Your task to perform on an android device: change keyboard looks Image 0: 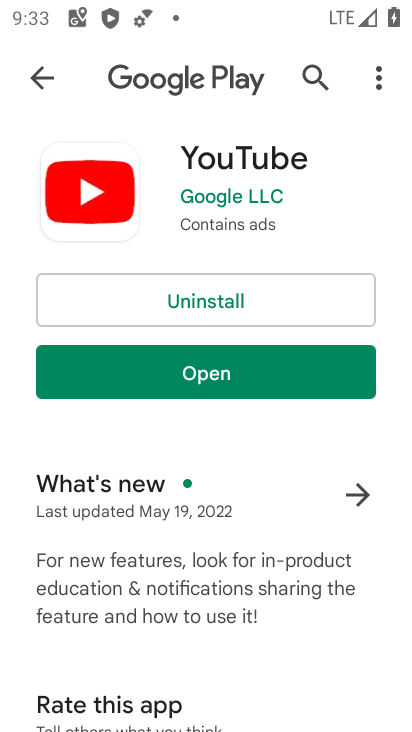
Step 0: press home button
Your task to perform on an android device: change keyboard looks Image 1: 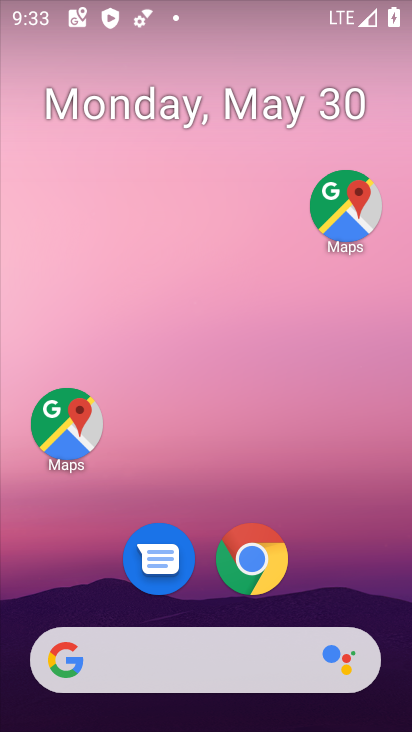
Step 1: drag from (342, 511) to (286, 168)
Your task to perform on an android device: change keyboard looks Image 2: 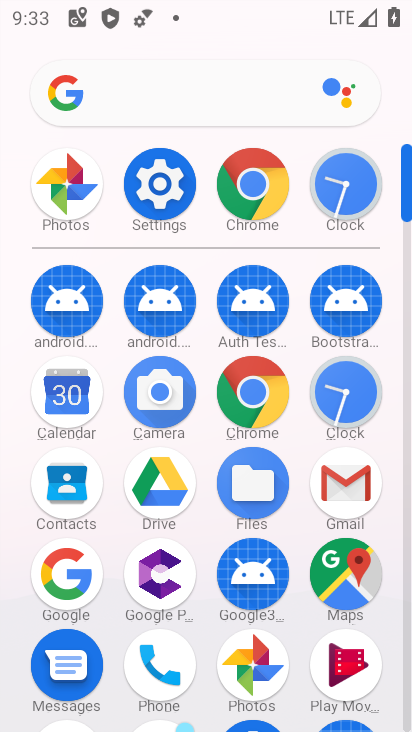
Step 2: click (156, 199)
Your task to perform on an android device: change keyboard looks Image 3: 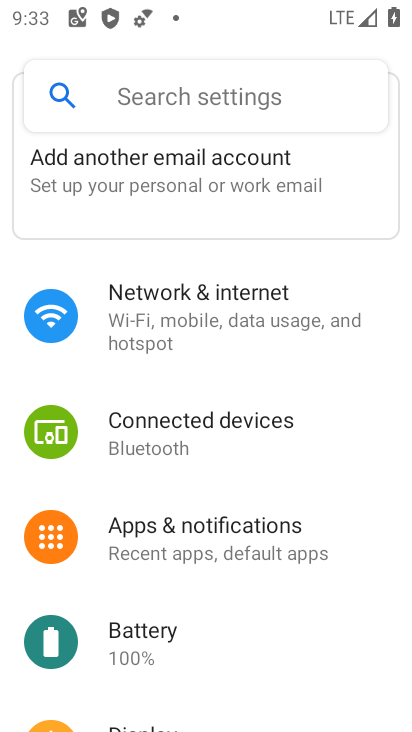
Step 3: drag from (204, 619) to (234, 108)
Your task to perform on an android device: change keyboard looks Image 4: 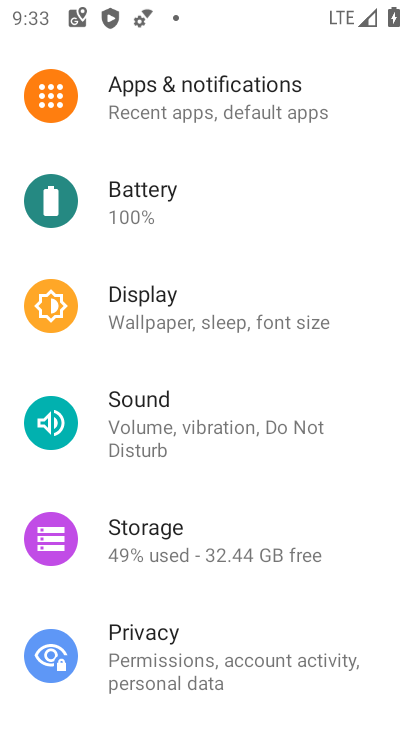
Step 4: drag from (225, 646) to (316, 118)
Your task to perform on an android device: change keyboard looks Image 5: 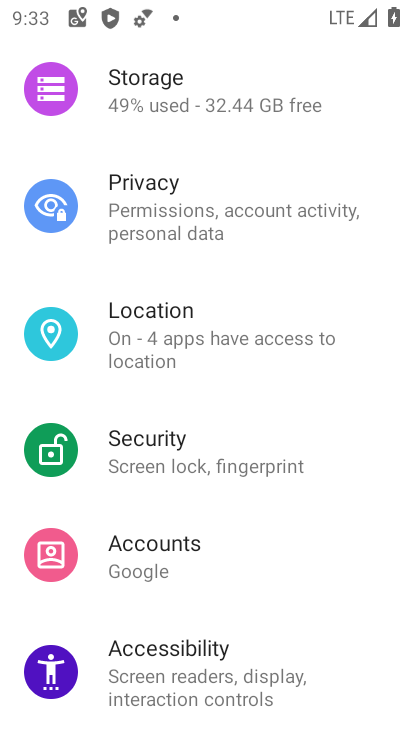
Step 5: drag from (159, 609) to (283, 124)
Your task to perform on an android device: change keyboard looks Image 6: 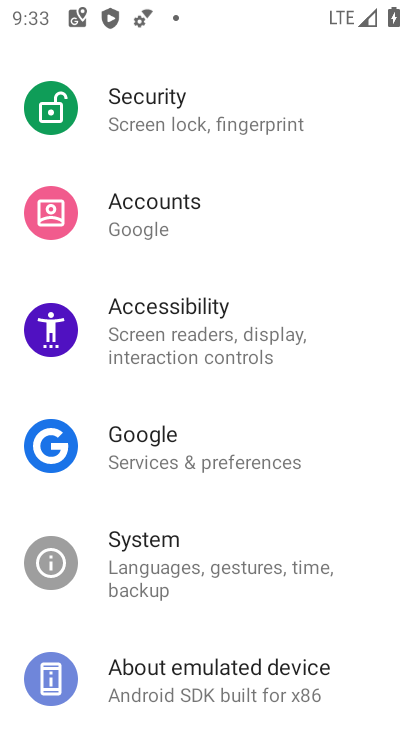
Step 6: click (183, 557)
Your task to perform on an android device: change keyboard looks Image 7: 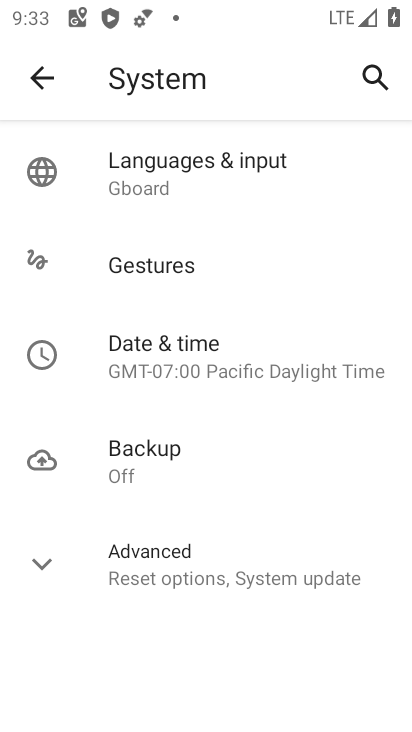
Step 7: click (169, 164)
Your task to perform on an android device: change keyboard looks Image 8: 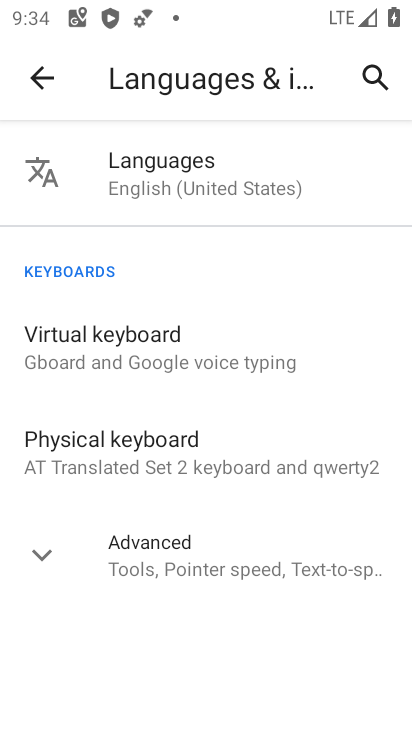
Step 8: click (117, 328)
Your task to perform on an android device: change keyboard looks Image 9: 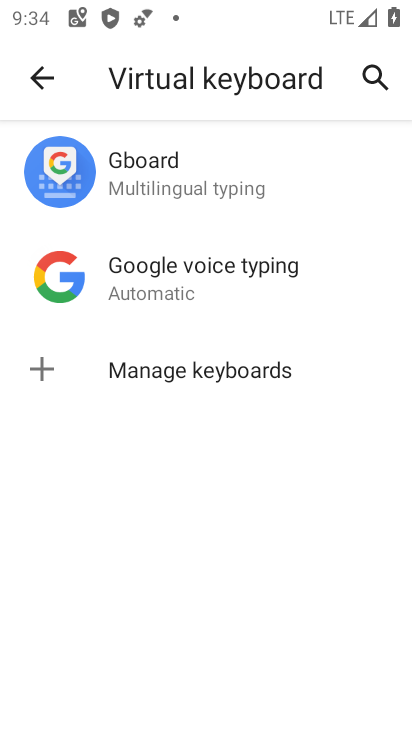
Step 9: click (155, 173)
Your task to perform on an android device: change keyboard looks Image 10: 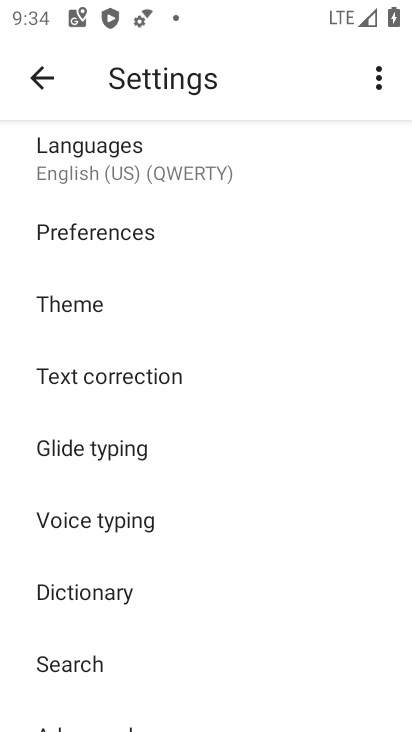
Step 10: click (145, 163)
Your task to perform on an android device: change keyboard looks Image 11: 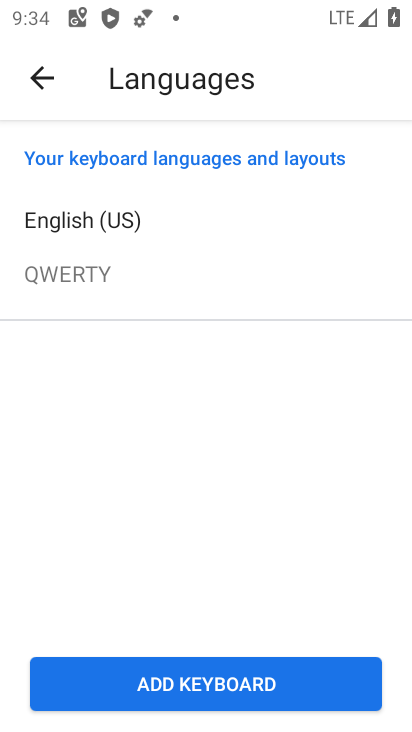
Step 11: click (43, 77)
Your task to perform on an android device: change keyboard looks Image 12: 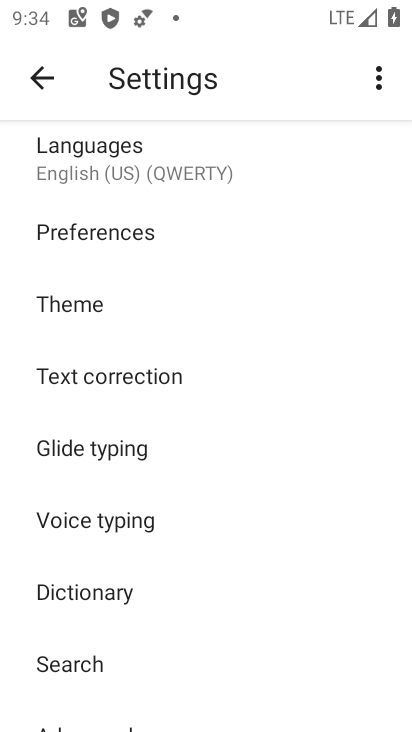
Step 12: click (91, 290)
Your task to perform on an android device: change keyboard looks Image 13: 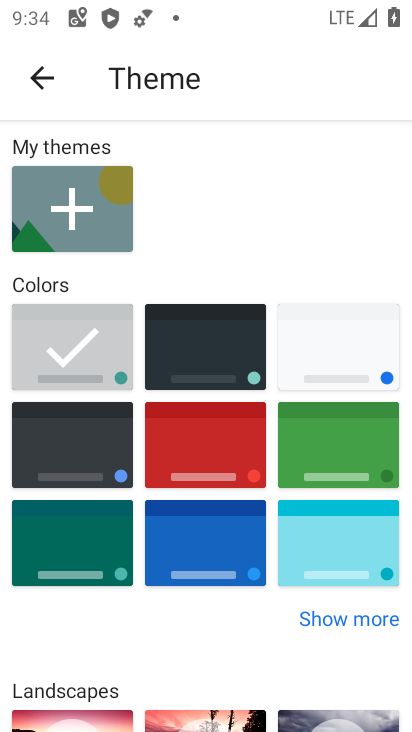
Step 13: click (386, 359)
Your task to perform on an android device: change keyboard looks Image 14: 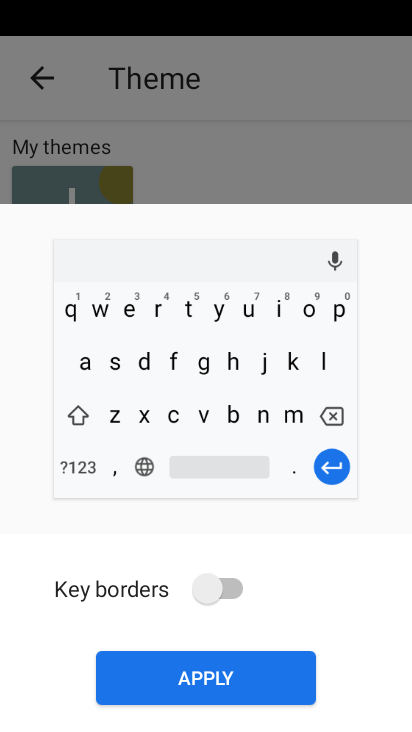
Step 14: click (204, 684)
Your task to perform on an android device: change keyboard looks Image 15: 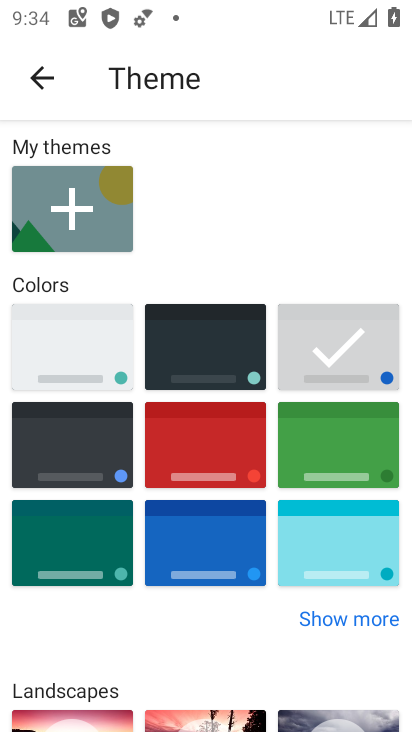
Step 15: task complete